Your task to perform on an android device: Go to wifi settings Image 0: 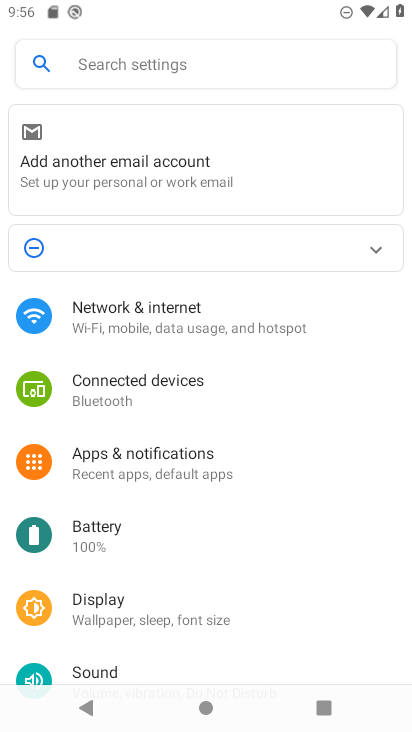
Step 0: click (219, 322)
Your task to perform on an android device: Go to wifi settings Image 1: 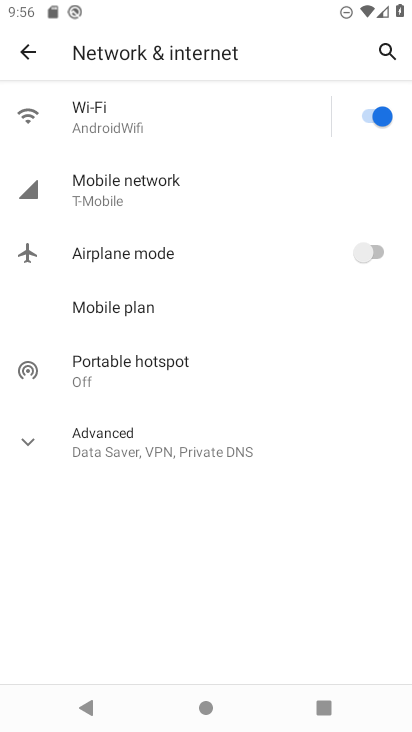
Step 1: click (131, 130)
Your task to perform on an android device: Go to wifi settings Image 2: 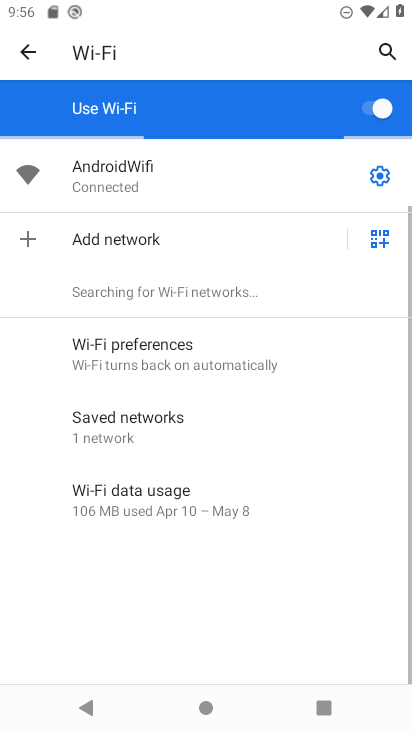
Step 2: click (387, 175)
Your task to perform on an android device: Go to wifi settings Image 3: 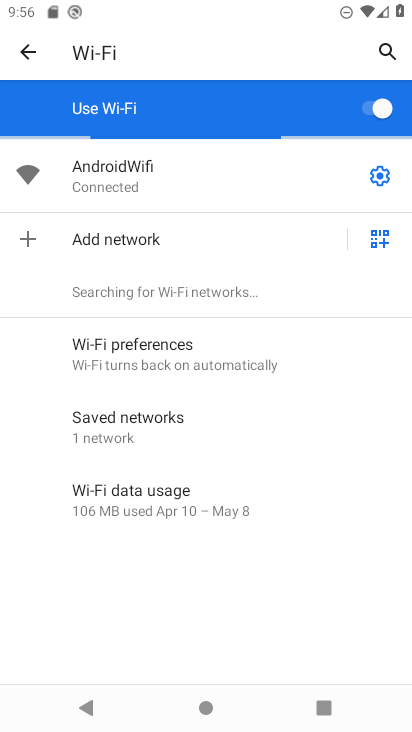
Step 3: click (380, 176)
Your task to perform on an android device: Go to wifi settings Image 4: 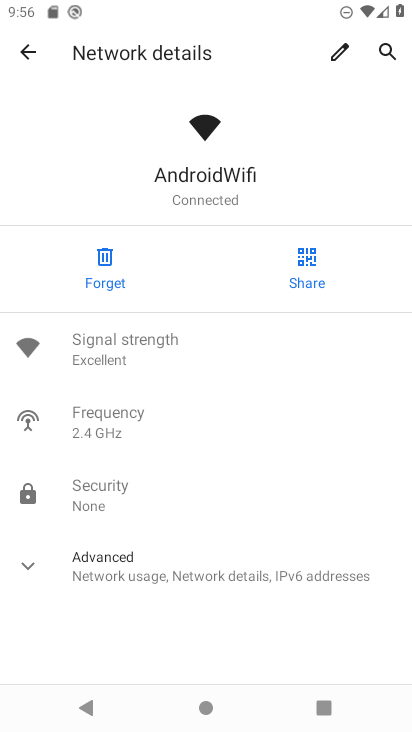
Step 4: click (23, 565)
Your task to perform on an android device: Go to wifi settings Image 5: 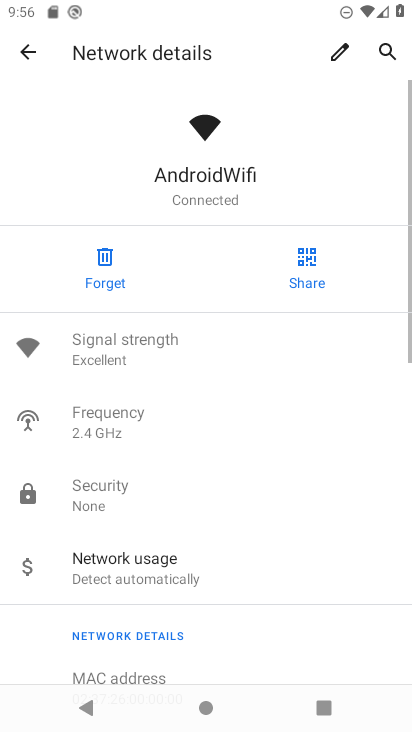
Step 5: task complete